Your task to perform on an android device: Go to privacy settings Image 0: 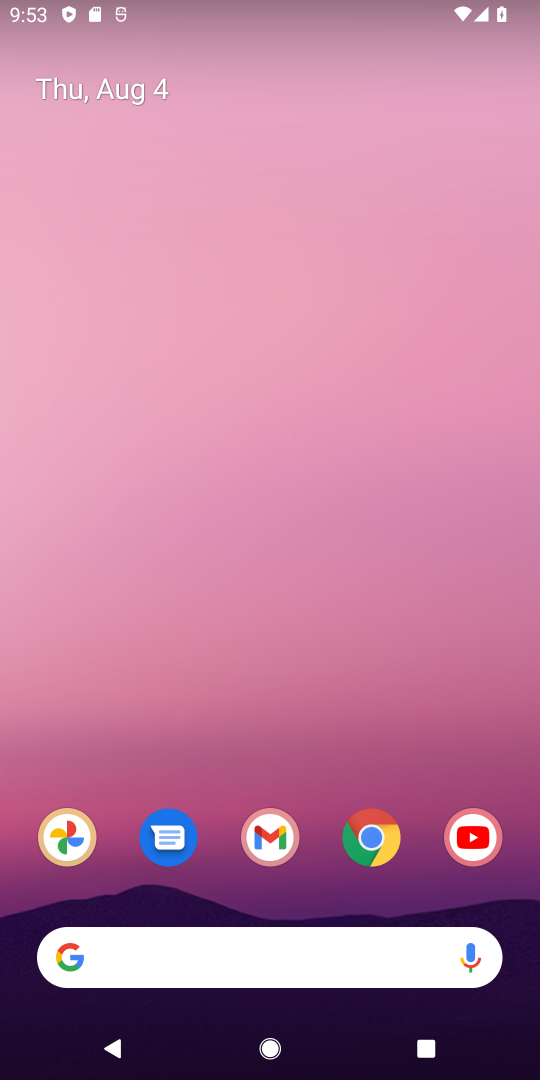
Step 0: drag from (322, 902) to (362, 81)
Your task to perform on an android device: Go to privacy settings Image 1: 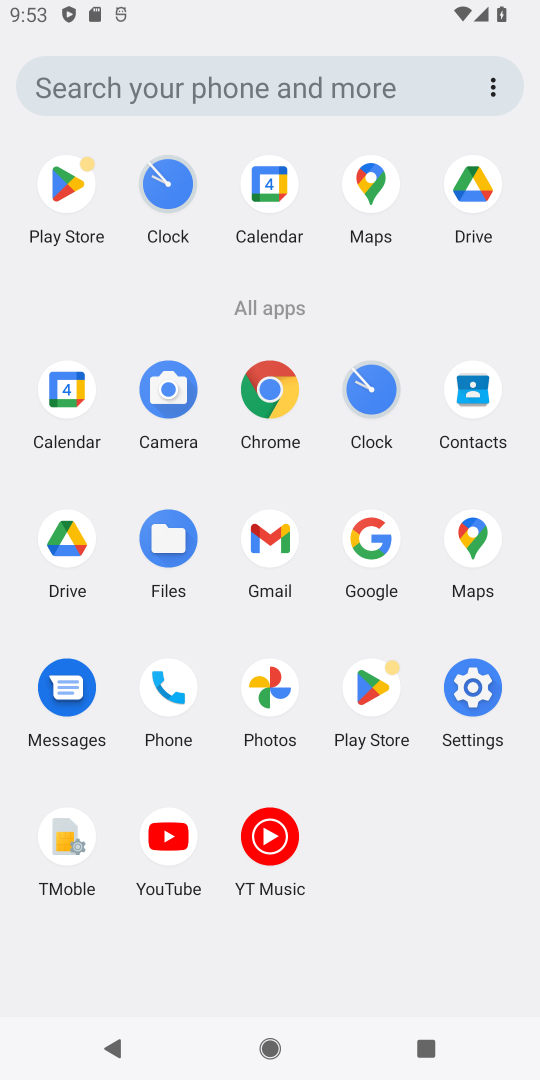
Step 1: click (473, 680)
Your task to perform on an android device: Go to privacy settings Image 2: 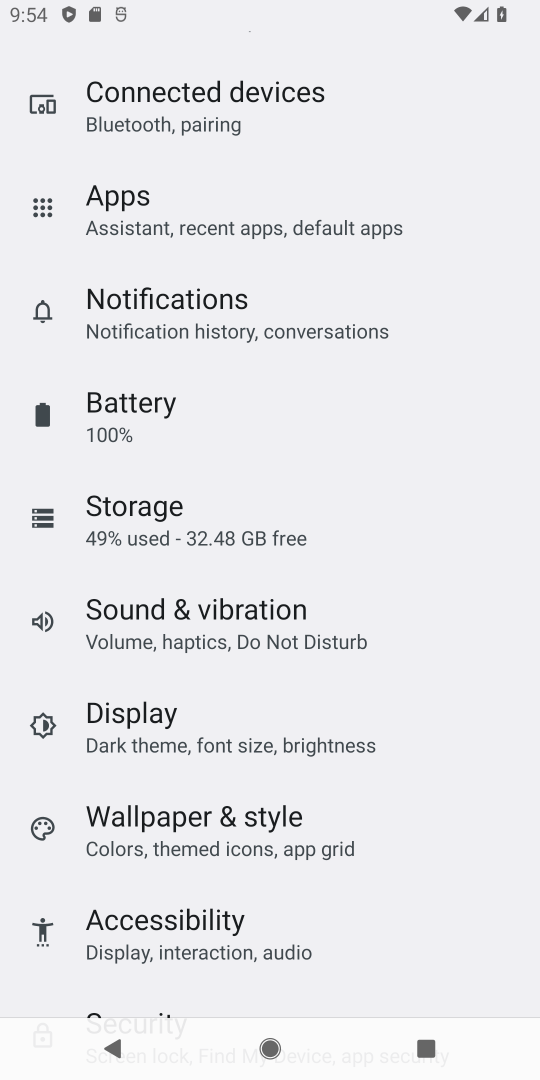
Step 2: drag from (226, 865) to (257, 136)
Your task to perform on an android device: Go to privacy settings Image 3: 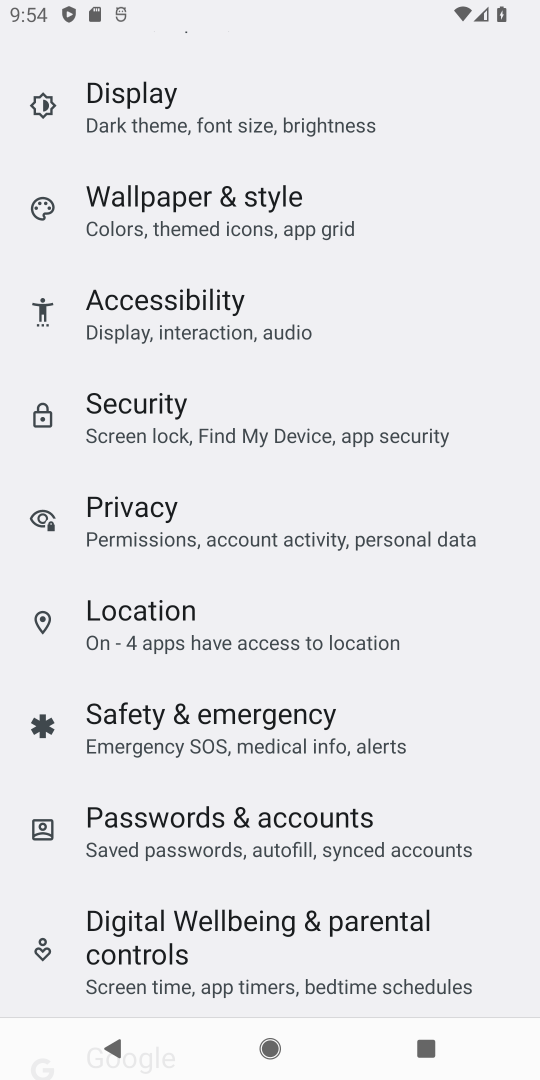
Step 3: click (194, 522)
Your task to perform on an android device: Go to privacy settings Image 4: 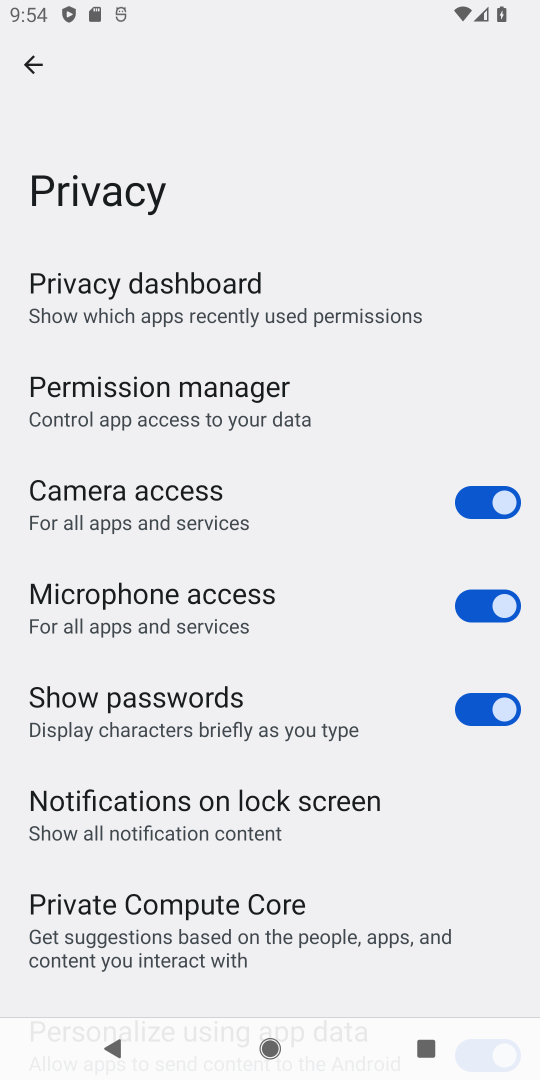
Step 4: task complete